Your task to perform on an android device: empty trash in the gmail app Image 0: 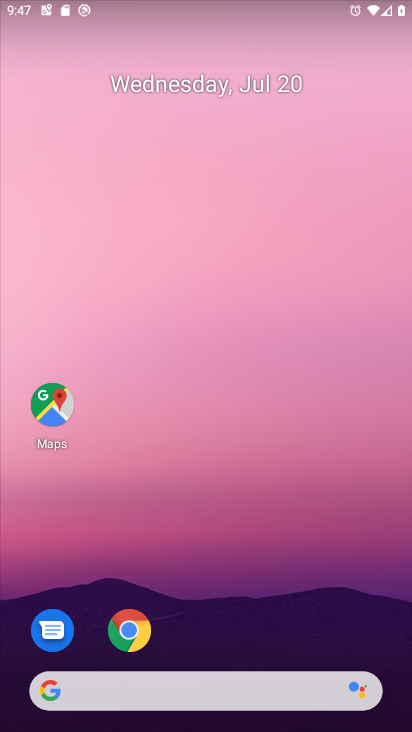
Step 0: drag from (277, 677) to (210, 65)
Your task to perform on an android device: empty trash in the gmail app Image 1: 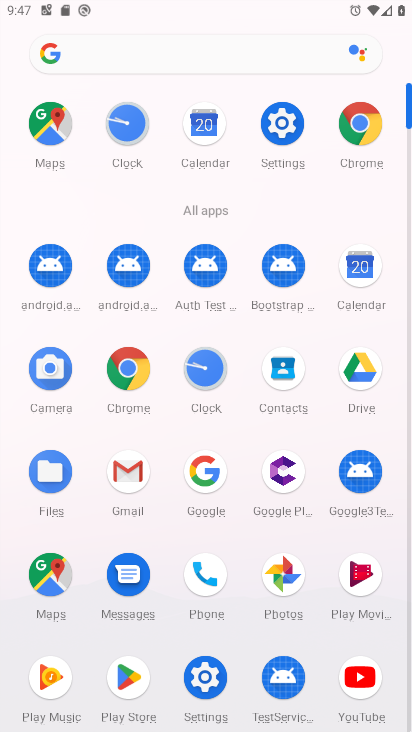
Step 1: click (138, 472)
Your task to perform on an android device: empty trash in the gmail app Image 2: 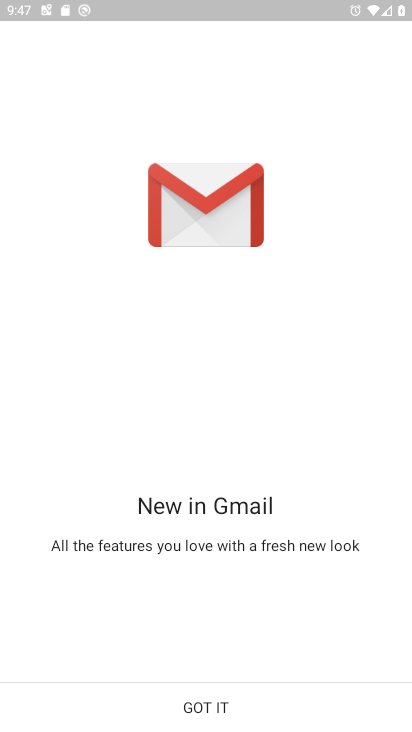
Step 2: click (184, 714)
Your task to perform on an android device: empty trash in the gmail app Image 3: 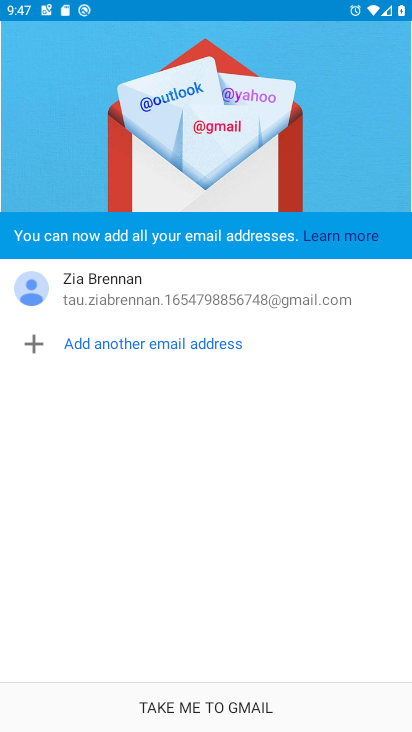
Step 3: click (179, 696)
Your task to perform on an android device: empty trash in the gmail app Image 4: 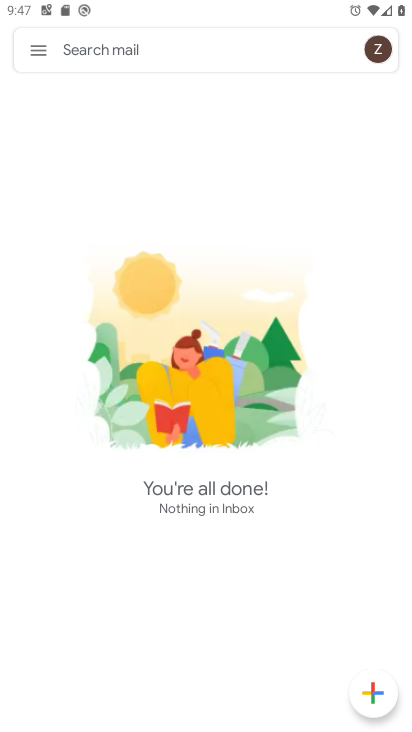
Step 4: click (32, 56)
Your task to perform on an android device: empty trash in the gmail app Image 5: 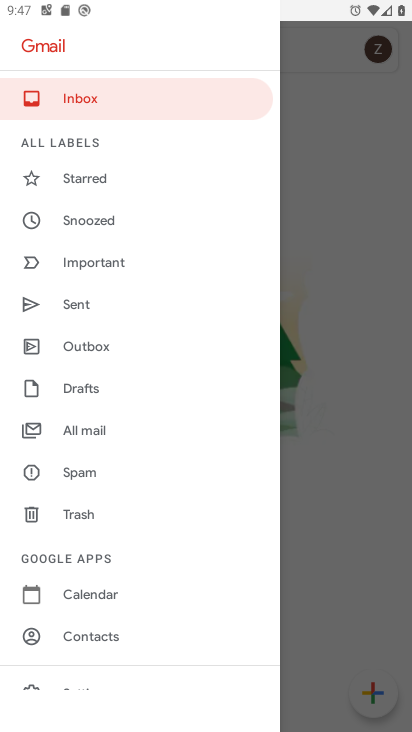
Step 5: click (90, 504)
Your task to perform on an android device: empty trash in the gmail app Image 6: 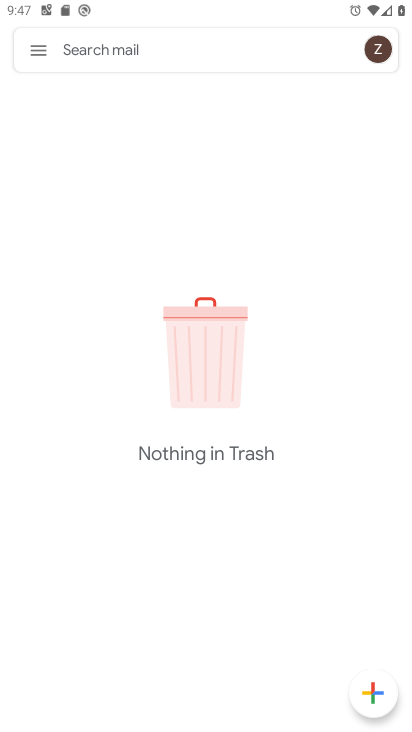
Step 6: task complete